Your task to perform on an android device: Go to notification settings Image 0: 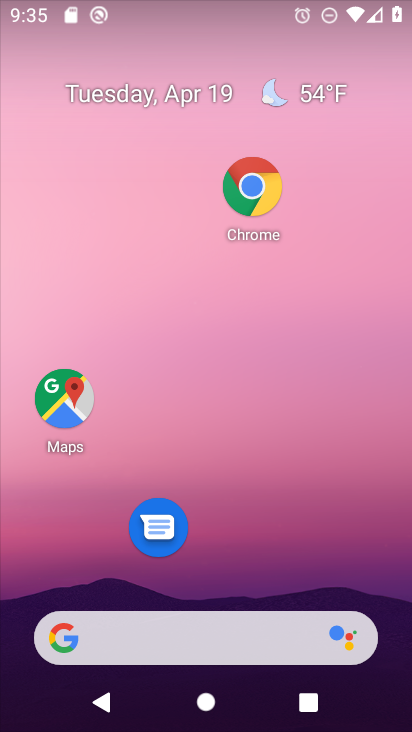
Step 0: drag from (267, 507) to (285, 231)
Your task to perform on an android device: Go to notification settings Image 1: 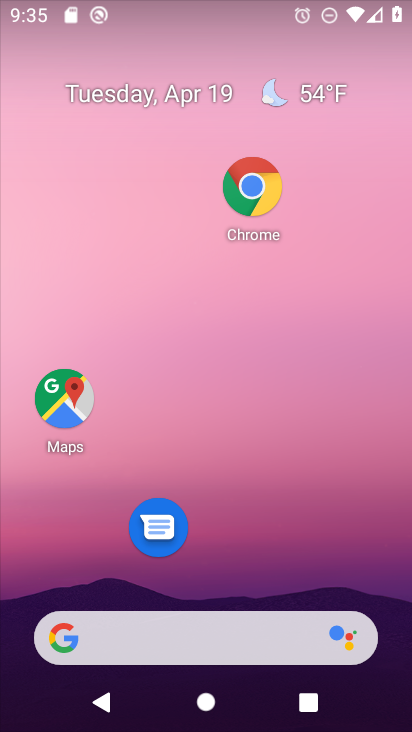
Step 1: drag from (244, 538) to (318, 164)
Your task to perform on an android device: Go to notification settings Image 2: 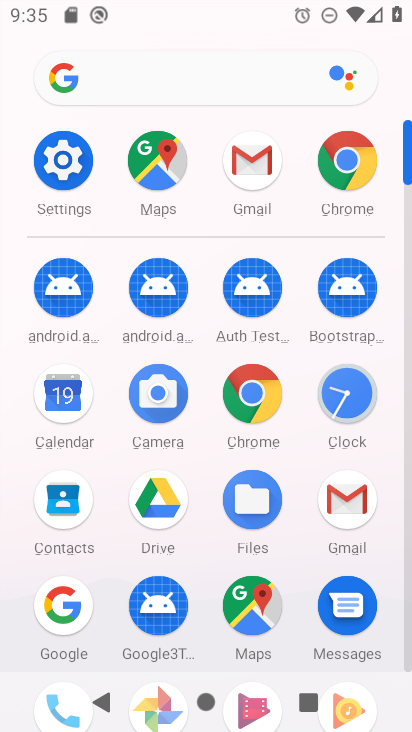
Step 2: click (55, 159)
Your task to perform on an android device: Go to notification settings Image 3: 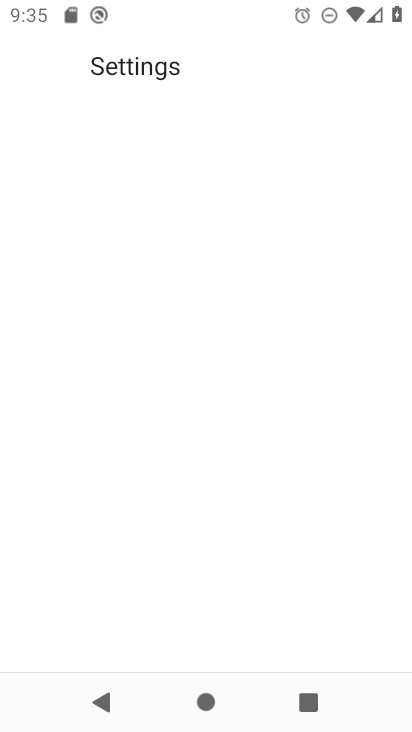
Step 3: click (61, 153)
Your task to perform on an android device: Go to notification settings Image 4: 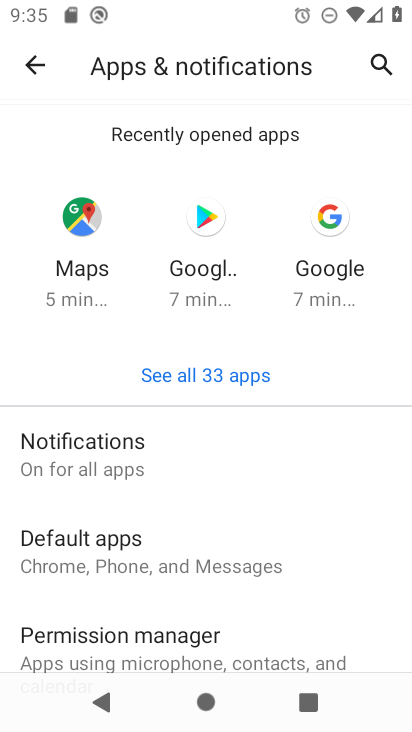
Step 4: click (37, 62)
Your task to perform on an android device: Go to notification settings Image 5: 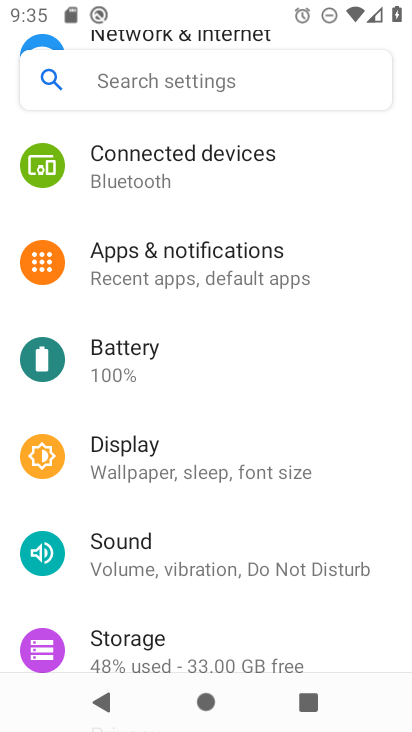
Step 5: task complete